Your task to perform on an android device: open app "Adobe Acrobat Reader" (install if not already installed) Image 0: 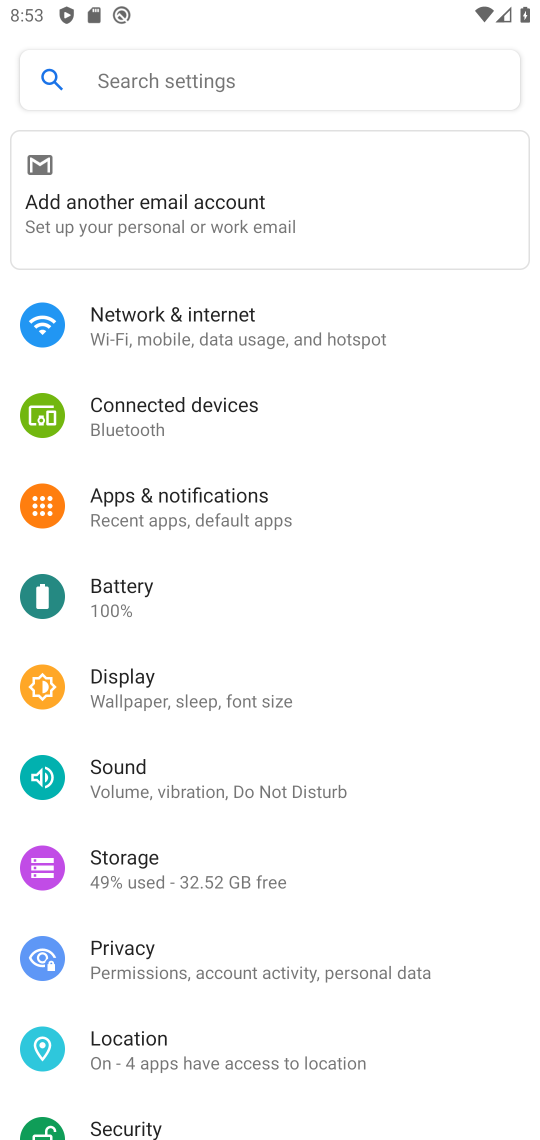
Step 0: press home button
Your task to perform on an android device: open app "Adobe Acrobat Reader" (install if not already installed) Image 1: 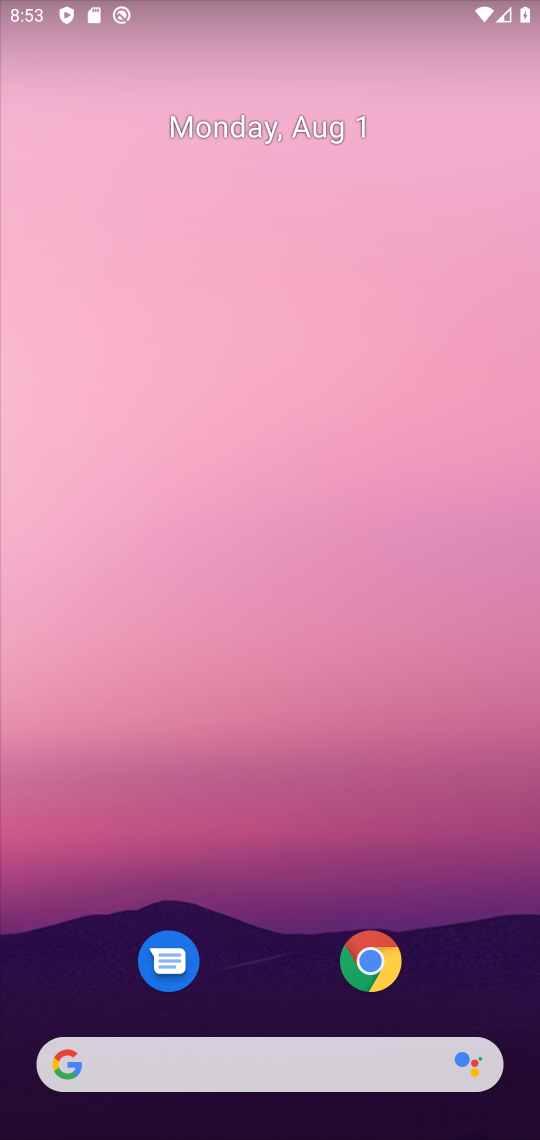
Step 1: drag from (401, 1002) to (305, 22)
Your task to perform on an android device: open app "Adobe Acrobat Reader" (install if not already installed) Image 2: 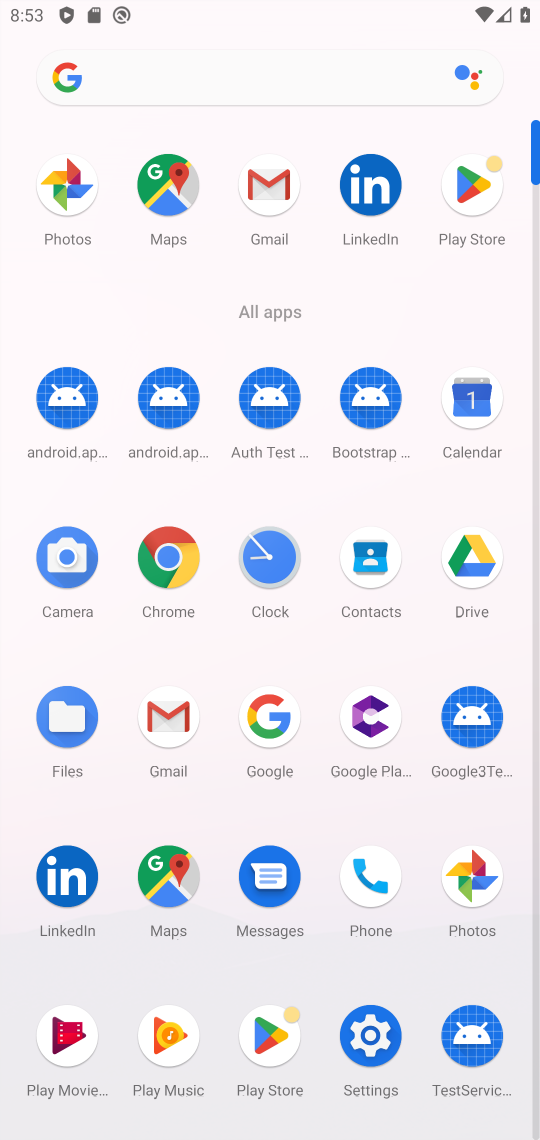
Step 2: click (484, 185)
Your task to perform on an android device: open app "Adobe Acrobat Reader" (install if not already installed) Image 3: 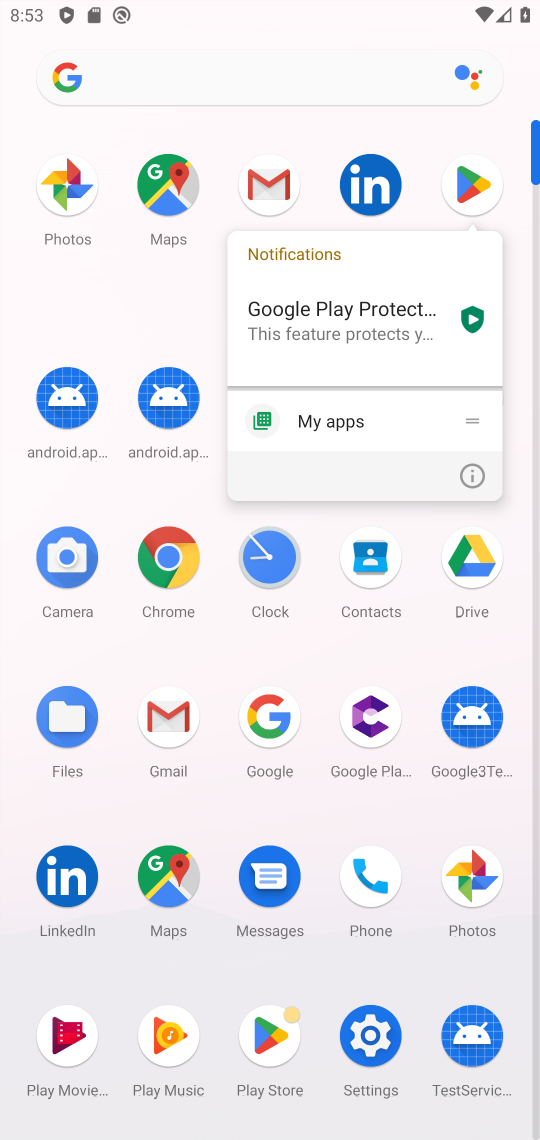
Step 3: click (474, 205)
Your task to perform on an android device: open app "Adobe Acrobat Reader" (install if not already installed) Image 4: 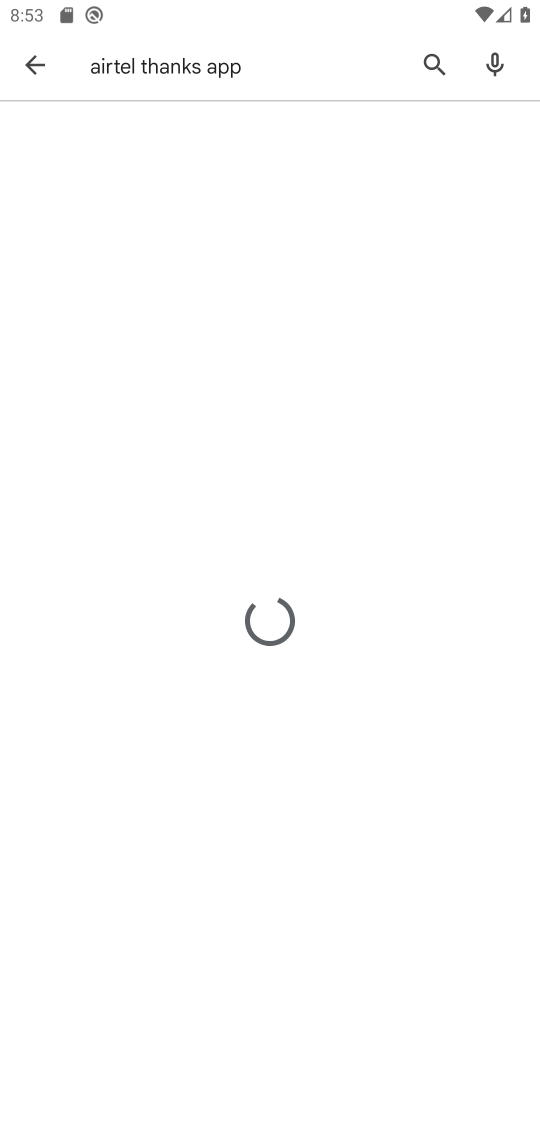
Step 4: click (31, 62)
Your task to perform on an android device: open app "Adobe Acrobat Reader" (install if not already installed) Image 5: 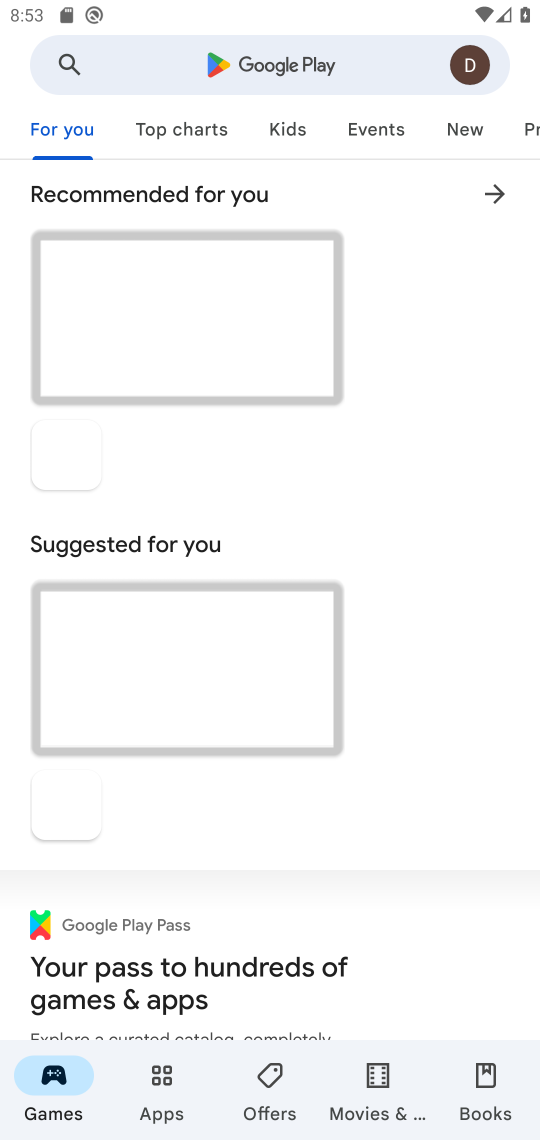
Step 5: click (202, 66)
Your task to perform on an android device: open app "Adobe Acrobat Reader" (install if not already installed) Image 6: 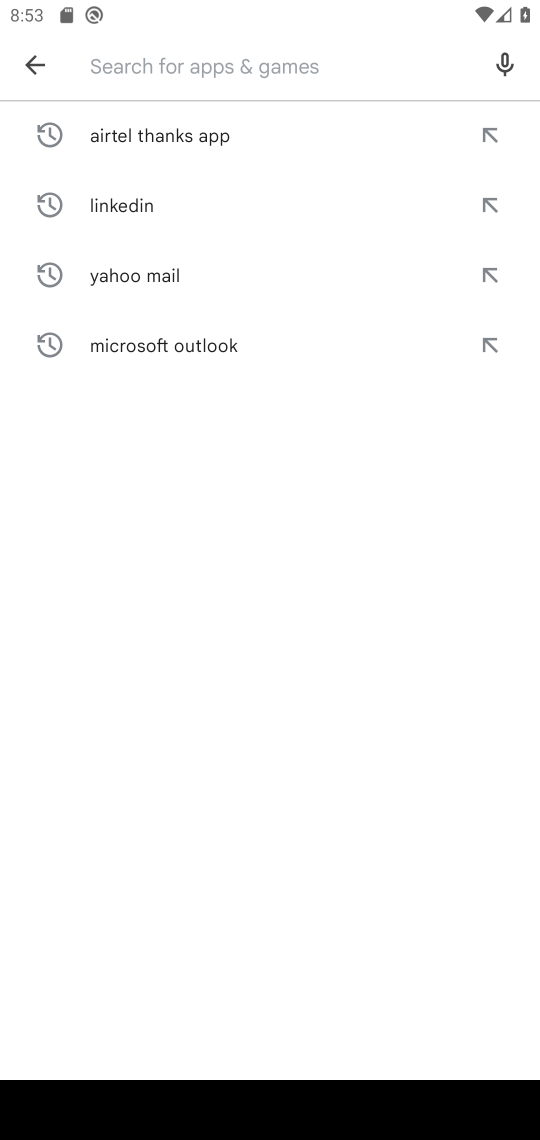
Step 6: type "Adobe Acrobat Reader"
Your task to perform on an android device: open app "Adobe Acrobat Reader" (install if not already installed) Image 7: 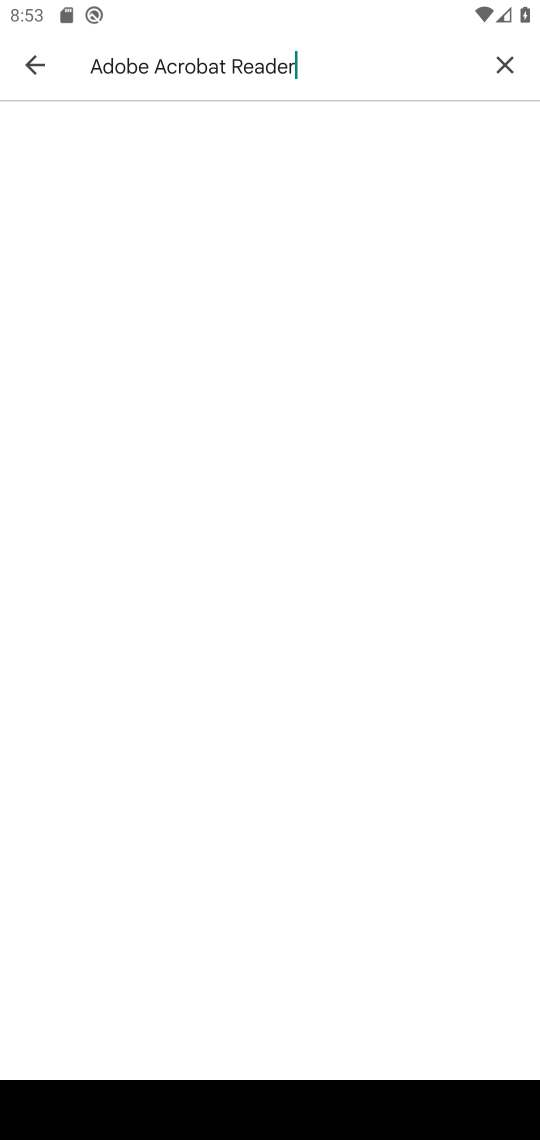
Step 7: press enter
Your task to perform on an android device: open app "Adobe Acrobat Reader" (install if not already installed) Image 8: 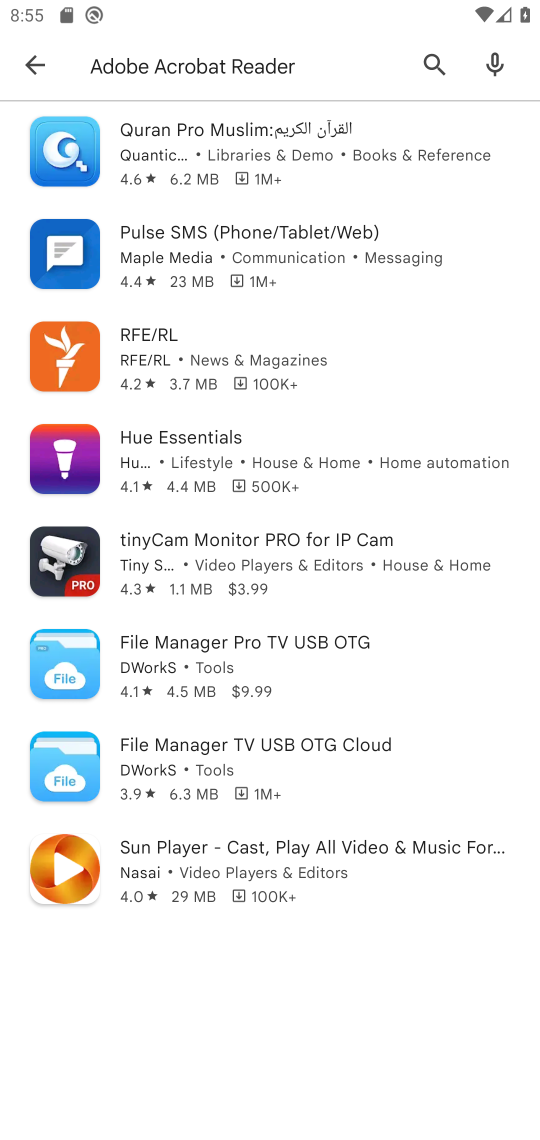
Step 8: task complete